Your task to perform on an android device: Open Wikipedia Image 0: 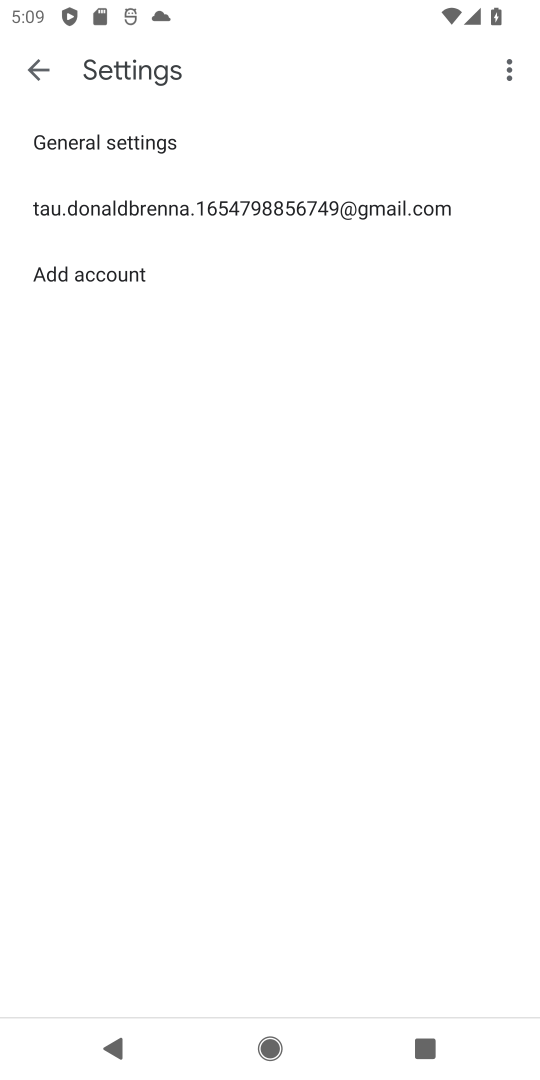
Step 0: press back button
Your task to perform on an android device: Open Wikipedia Image 1: 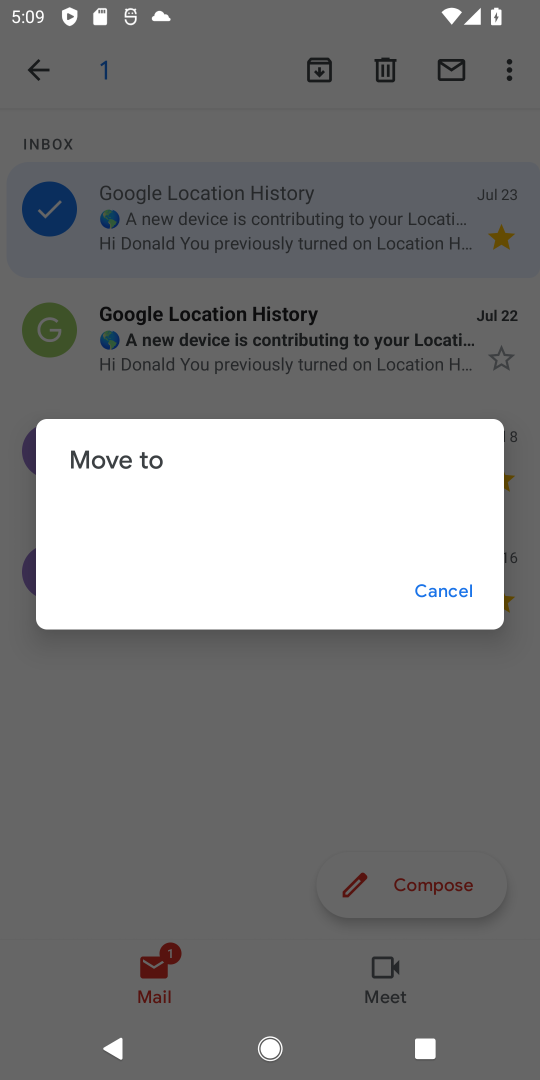
Step 1: press back button
Your task to perform on an android device: Open Wikipedia Image 2: 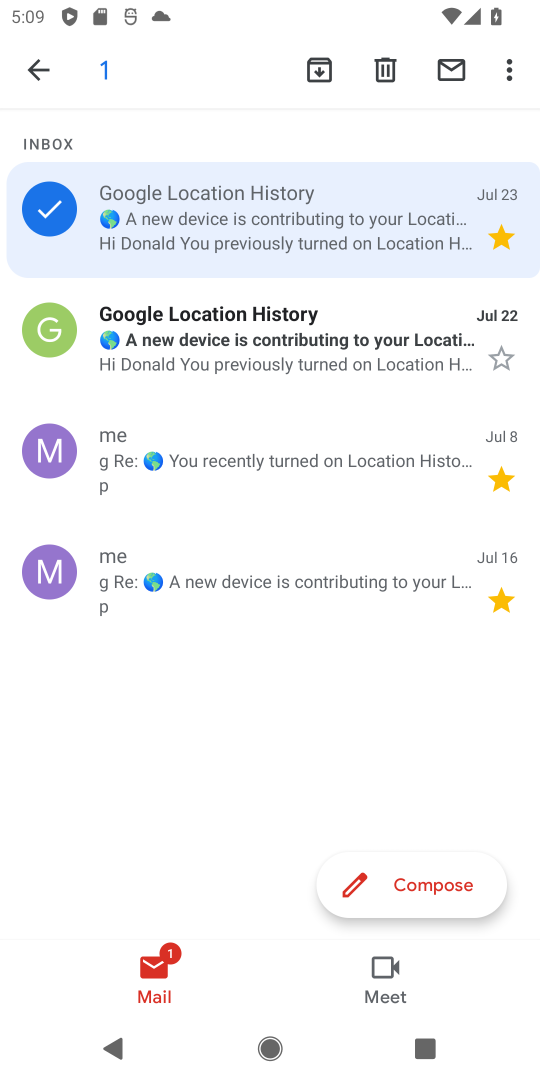
Step 2: press back button
Your task to perform on an android device: Open Wikipedia Image 3: 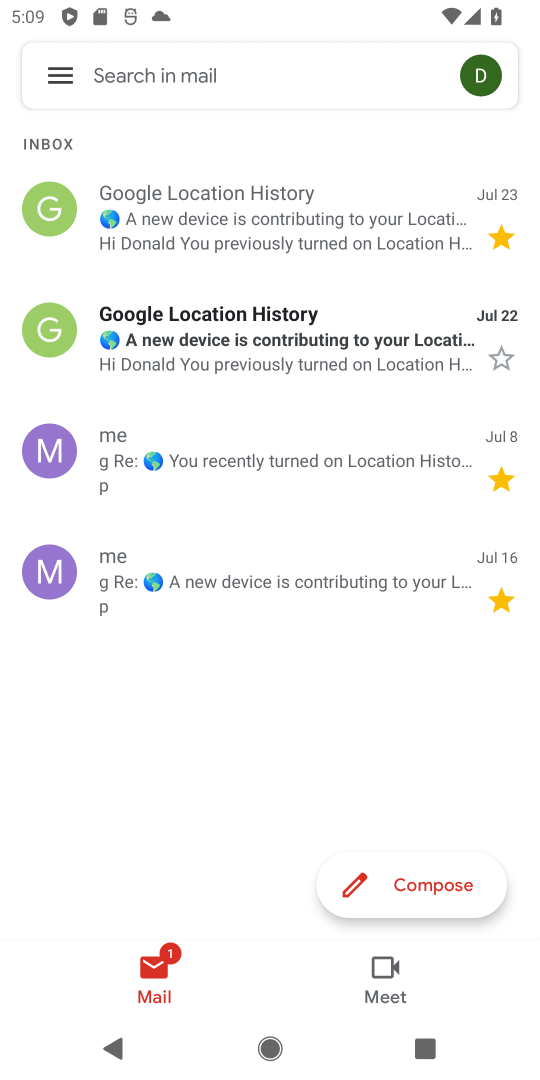
Step 3: press back button
Your task to perform on an android device: Open Wikipedia Image 4: 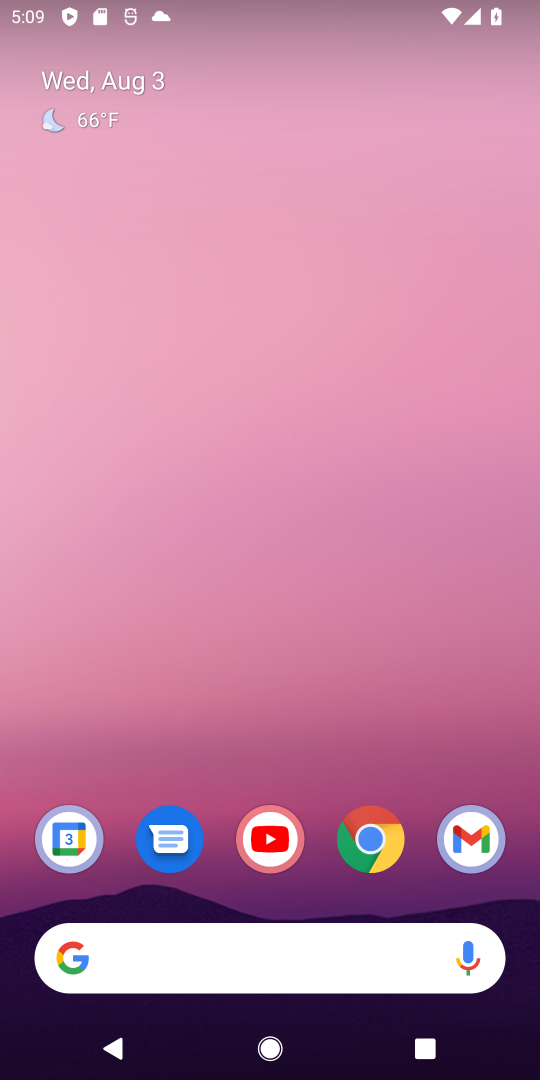
Step 4: click (375, 831)
Your task to perform on an android device: Open Wikipedia Image 5: 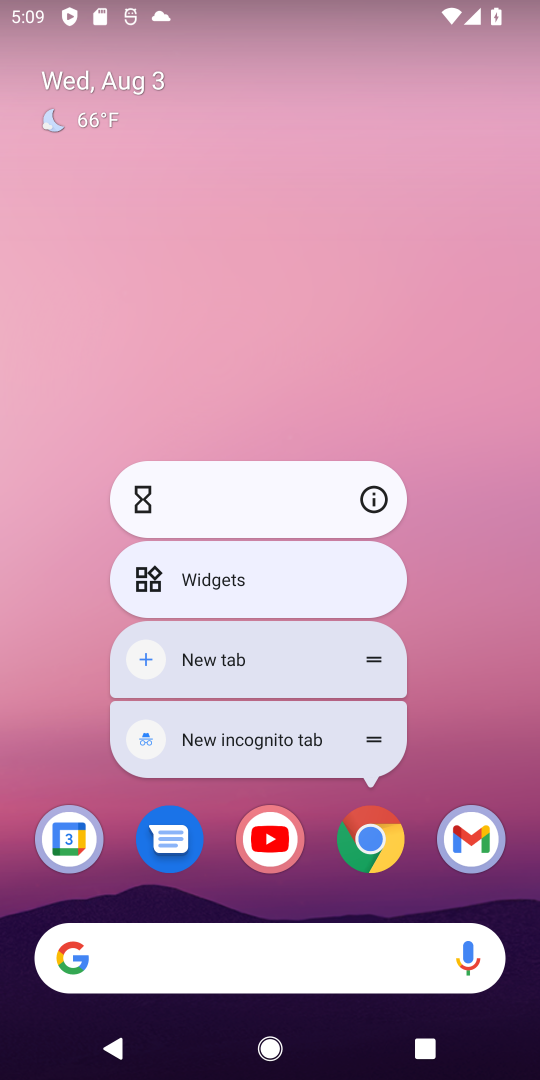
Step 5: click (382, 847)
Your task to perform on an android device: Open Wikipedia Image 6: 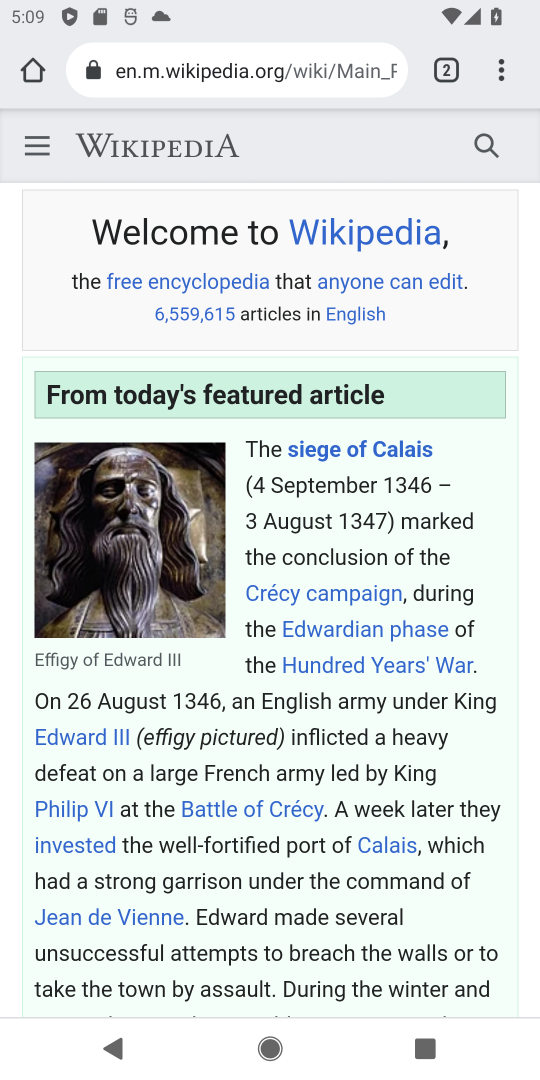
Step 6: task complete